Your task to perform on an android device: change keyboard looks Image 0: 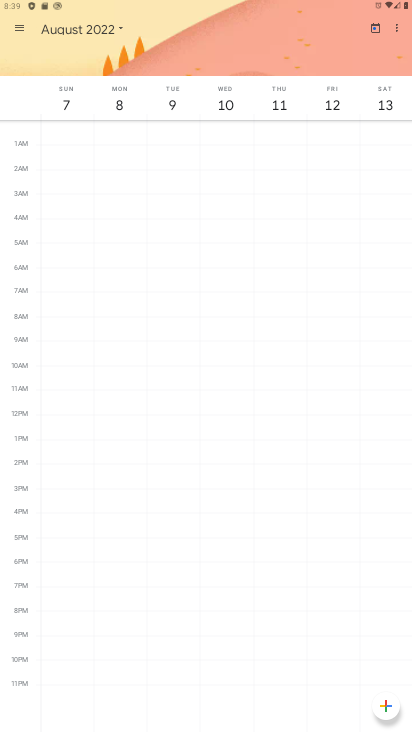
Step 0: press home button
Your task to perform on an android device: change keyboard looks Image 1: 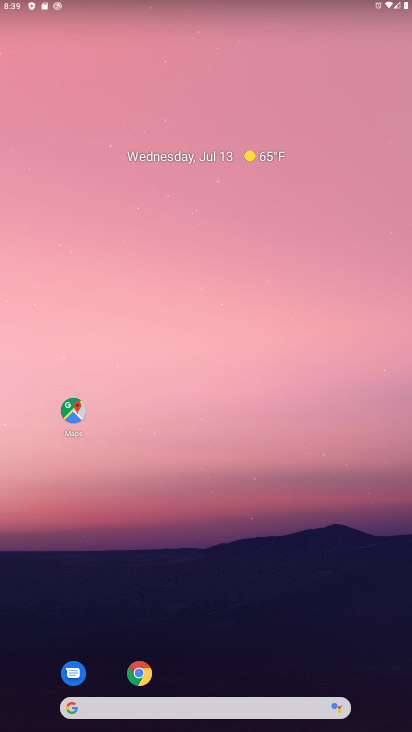
Step 1: drag from (225, 701) to (380, 48)
Your task to perform on an android device: change keyboard looks Image 2: 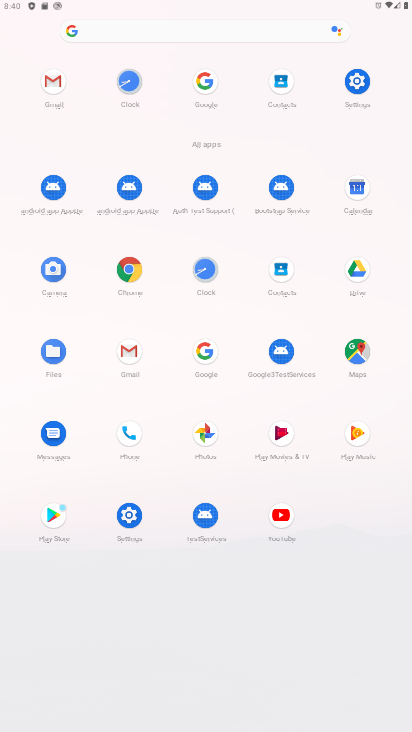
Step 2: click (357, 82)
Your task to perform on an android device: change keyboard looks Image 3: 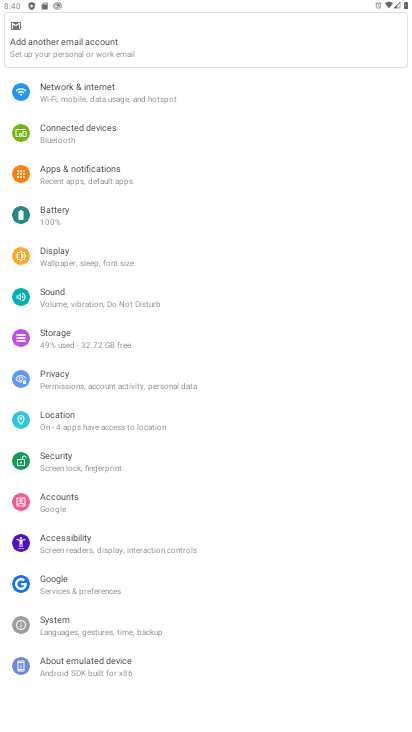
Step 3: click (61, 623)
Your task to perform on an android device: change keyboard looks Image 4: 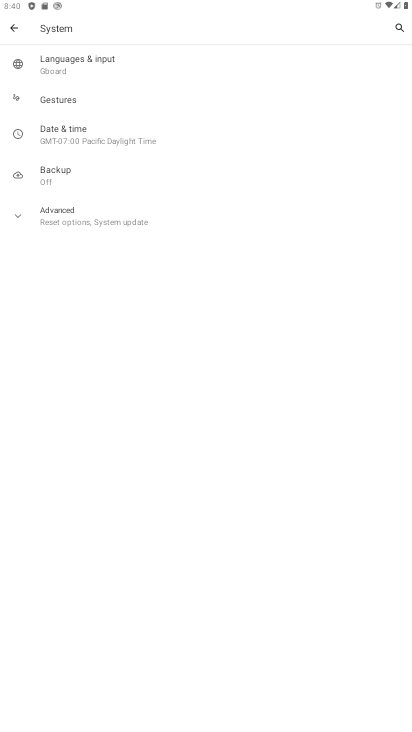
Step 4: click (86, 60)
Your task to perform on an android device: change keyboard looks Image 5: 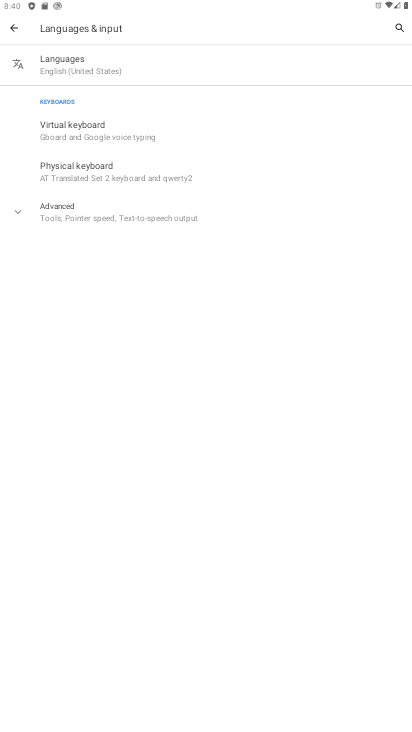
Step 5: click (71, 131)
Your task to perform on an android device: change keyboard looks Image 6: 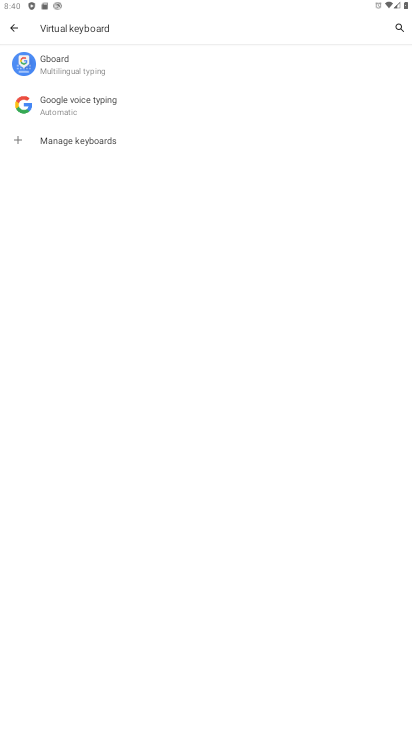
Step 6: click (72, 70)
Your task to perform on an android device: change keyboard looks Image 7: 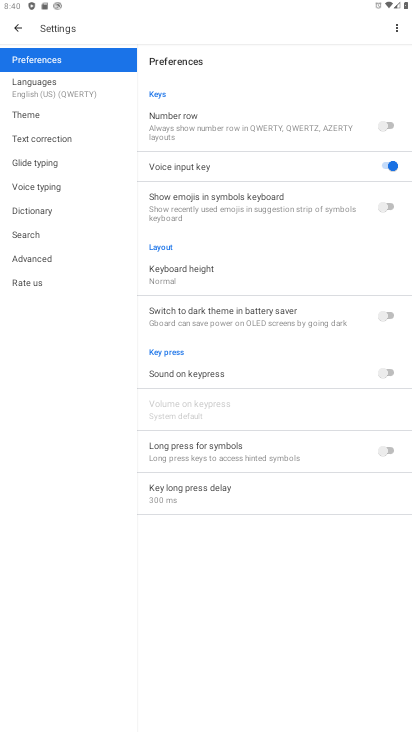
Step 7: click (41, 115)
Your task to perform on an android device: change keyboard looks Image 8: 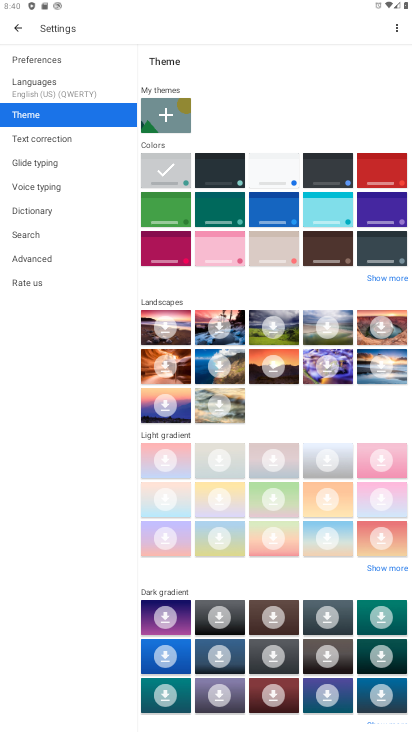
Step 8: click (276, 244)
Your task to perform on an android device: change keyboard looks Image 9: 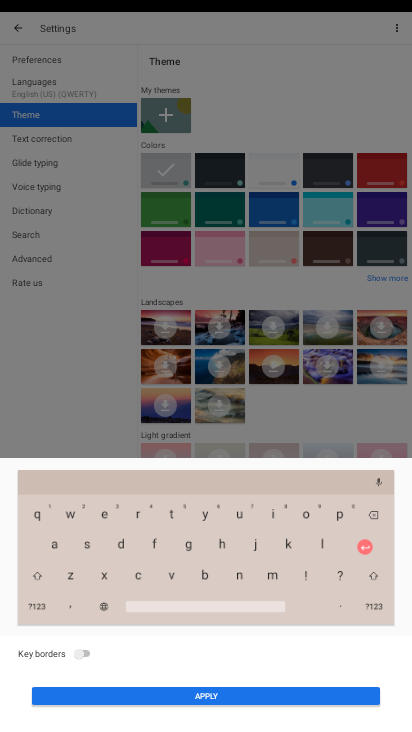
Step 9: click (81, 654)
Your task to perform on an android device: change keyboard looks Image 10: 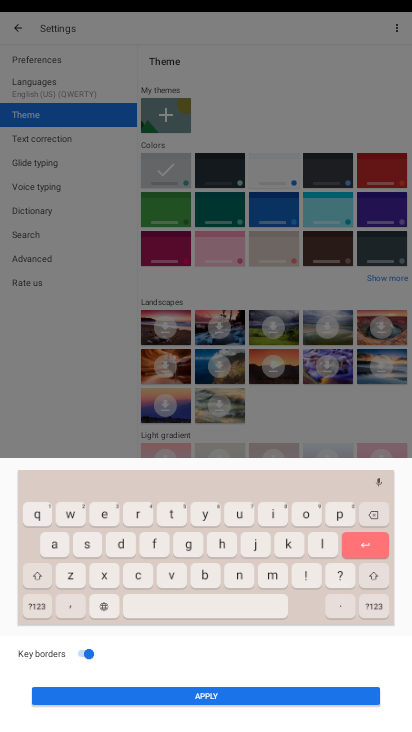
Step 10: click (210, 694)
Your task to perform on an android device: change keyboard looks Image 11: 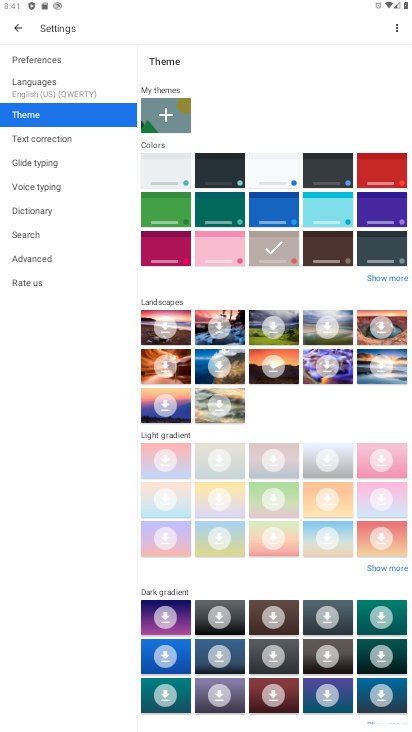
Step 11: task complete